Your task to perform on an android device: turn on data saver in the chrome app Image 0: 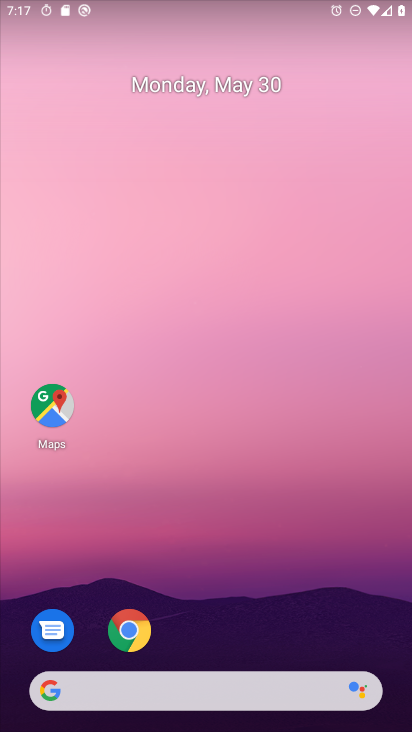
Step 0: drag from (332, 640) to (253, 3)
Your task to perform on an android device: turn on data saver in the chrome app Image 1: 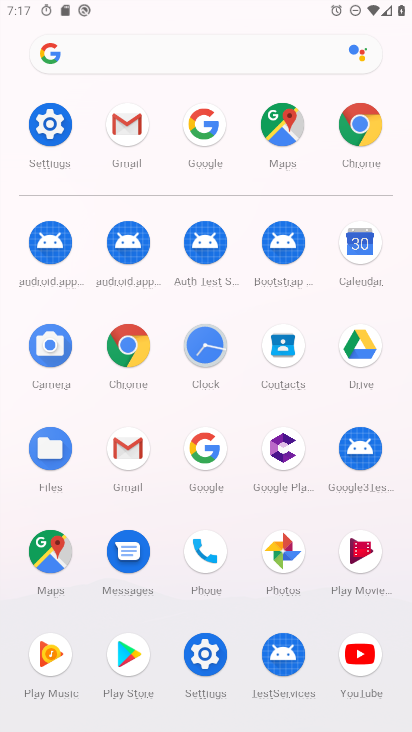
Step 1: click (366, 130)
Your task to perform on an android device: turn on data saver in the chrome app Image 2: 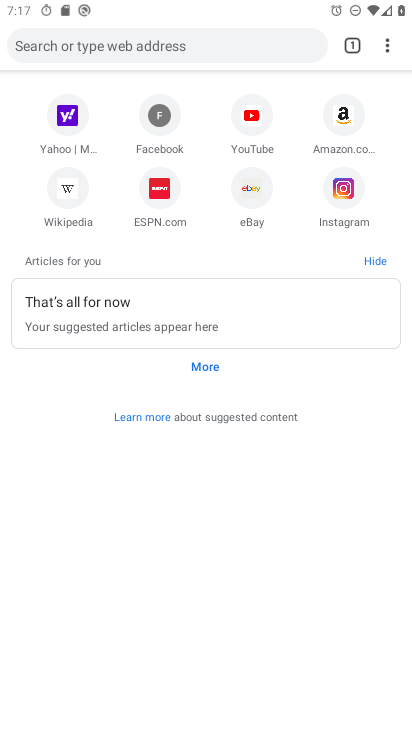
Step 2: click (389, 38)
Your task to perform on an android device: turn on data saver in the chrome app Image 3: 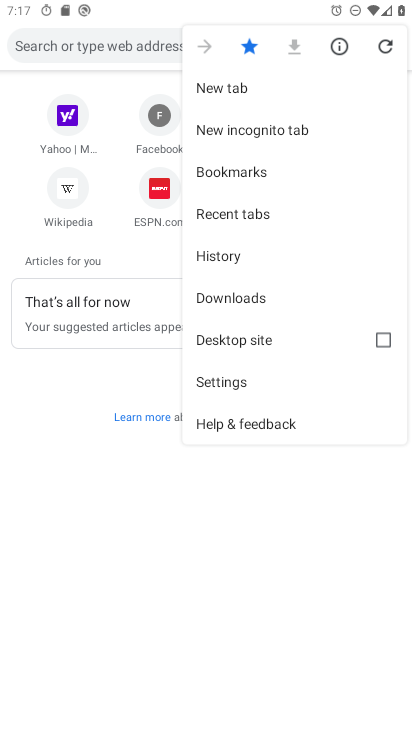
Step 3: click (249, 377)
Your task to perform on an android device: turn on data saver in the chrome app Image 4: 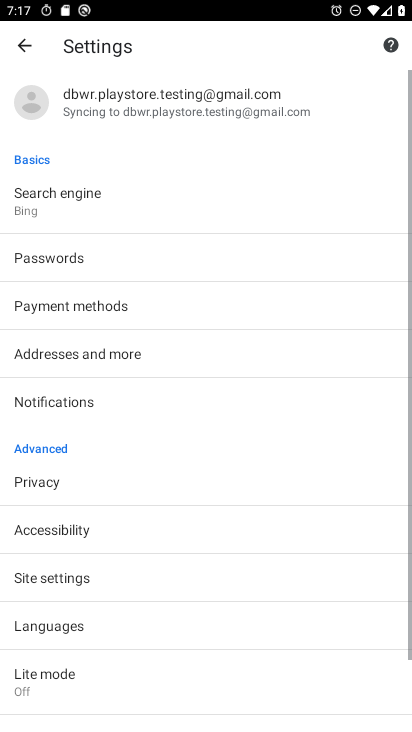
Step 4: drag from (125, 628) to (143, 157)
Your task to perform on an android device: turn on data saver in the chrome app Image 5: 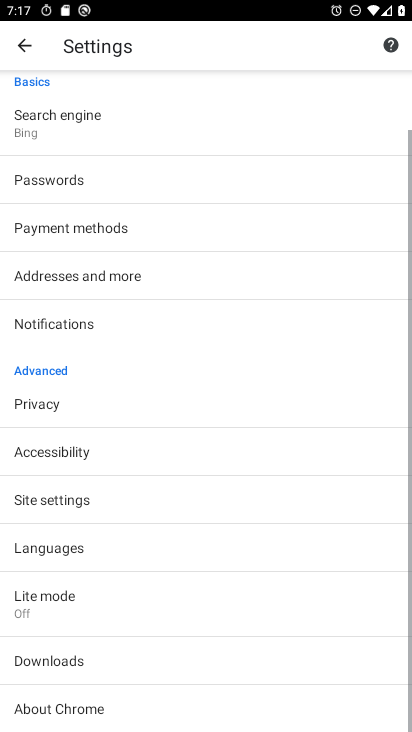
Step 5: click (77, 594)
Your task to perform on an android device: turn on data saver in the chrome app Image 6: 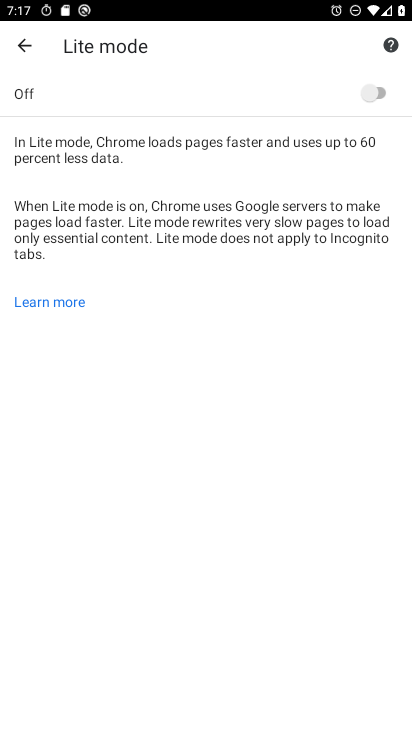
Step 6: click (396, 89)
Your task to perform on an android device: turn on data saver in the chrome app Image 7: 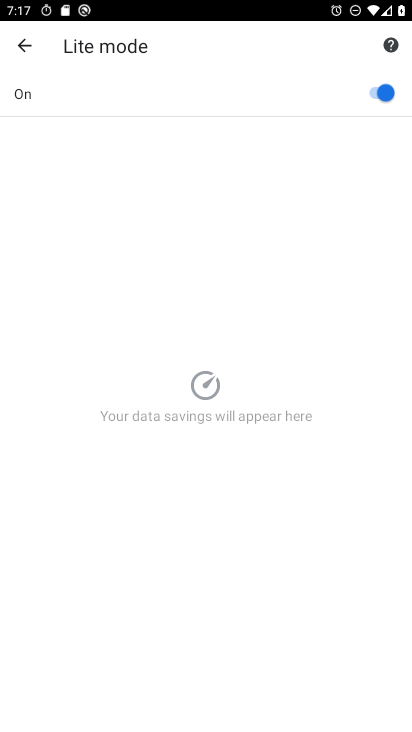
Step 7: task complete